Your task to perform on an android device: Open Google Chrome and click the shortcut for Amazon.com Image 0: 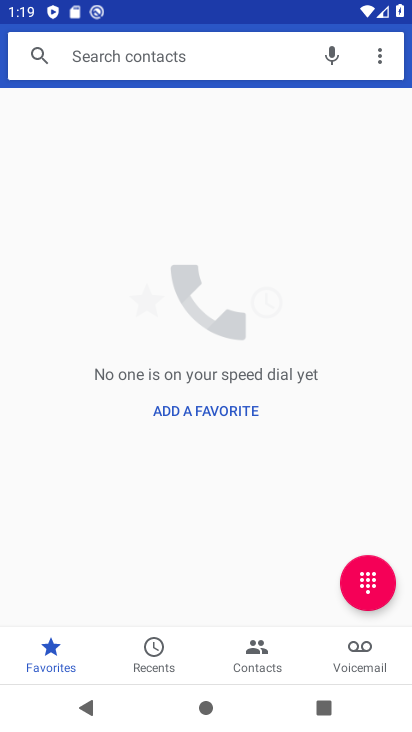
Step 0: press home button
Your task to perform on an android device: Open Google Chrome and click the shortcut for Amazon.com Image 1: 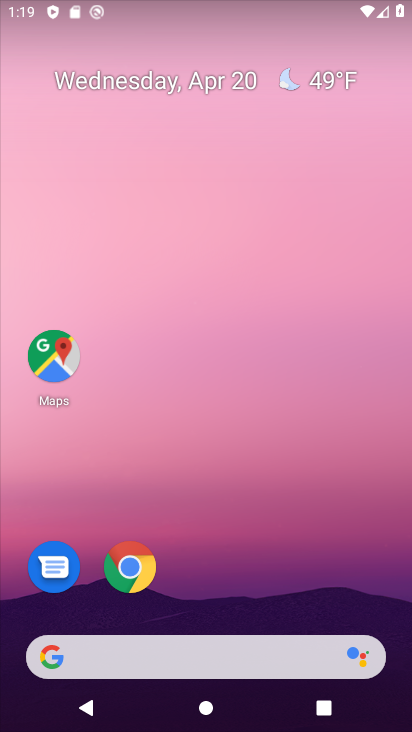
Step 1: click (114, 571)
Your task to perform on an android device: Open Google Chrome and click the shortcut for Amazon.com Image 2: 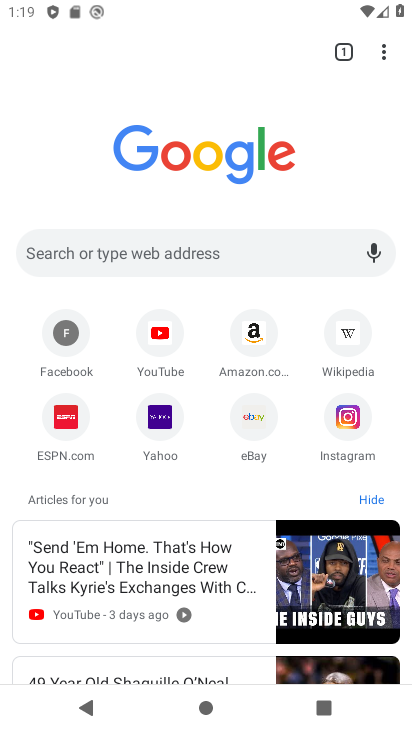
Step 2: click (260, 334)
Your task to perform on an android device: Open Google Chrome and click the shortcut for Amazon.com Image 3: 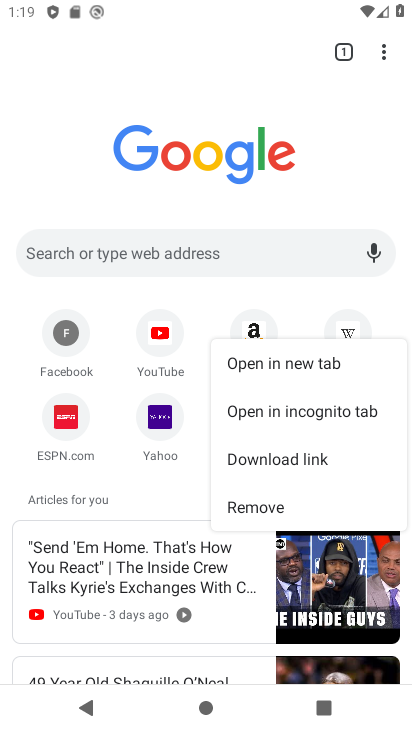
Step 3: click (255, 325)
Your task to perform on an android device: Open Google Chrome and click the shortcut for Amazon.com Image 4: 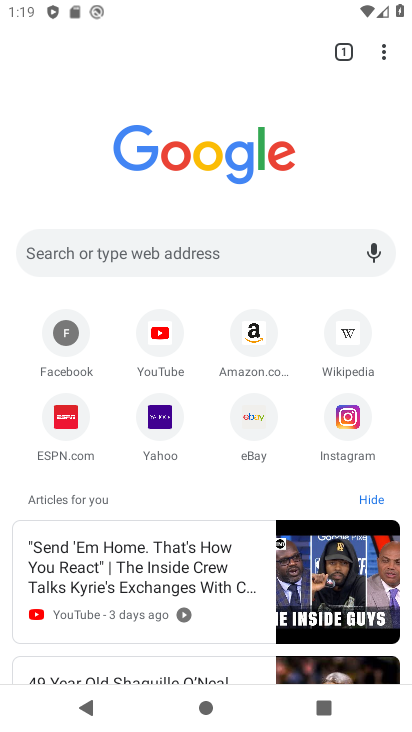
Step 4: click (257, 340)
Your task to perform on an android device: Open Google Chrome and click the shortcut for Amazon.com Image 5: 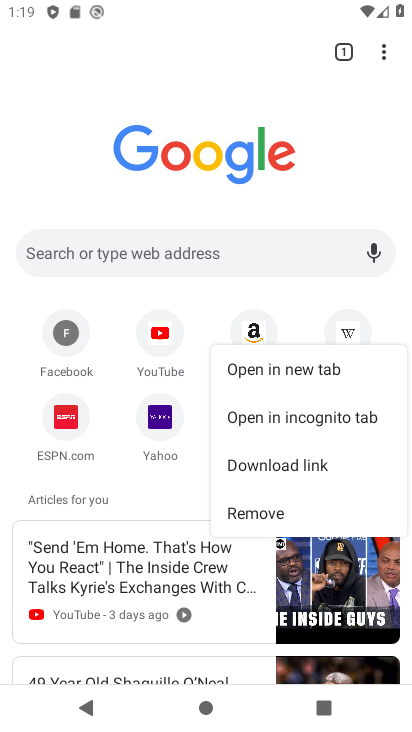
Step 5: click (256, 329)
Your task to perform on an android device: Open Google Chrome and click the shortcut for Amazon.com Image 6: 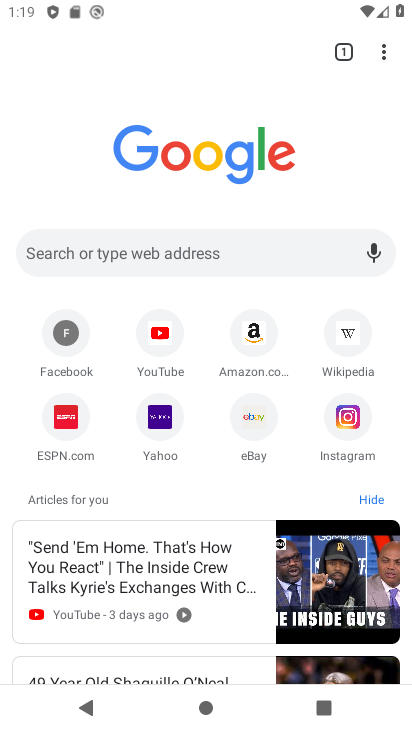
Step 6: click (251, 340)
Your task to perform on an android device: Open Google Chrome and click the shortcut for Amazon.com Image 7: 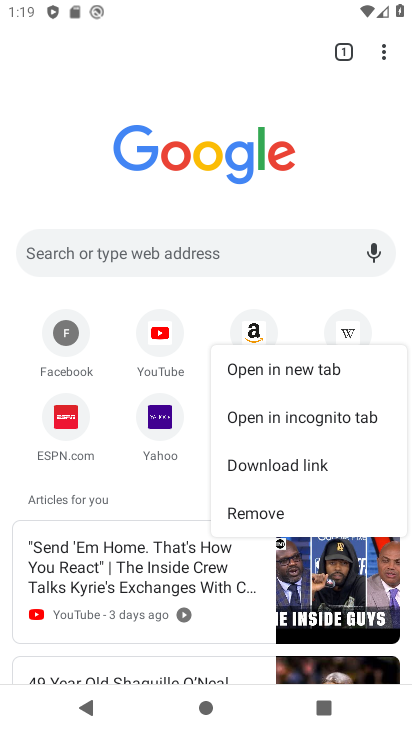
Step 7: click (259, 318)
Your task to perform on an android device: Open Google Chrome and click the shortcut for Amazon.com Image 8: 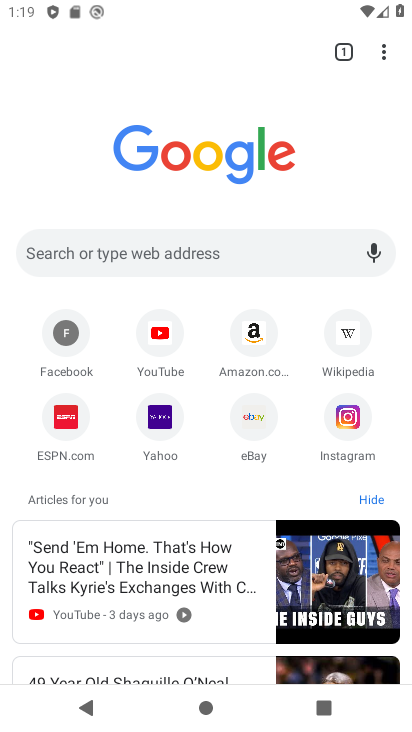
Step 8: click (257, 332)
Your task to perform on an android device: Open Google Chrome and click the shortcut for Amazon.com Image 9: 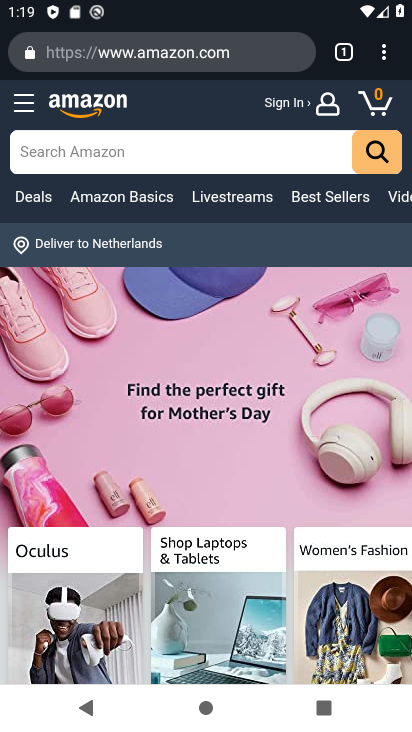
Step 9: task complete